Your task to perform on an android device: Go to Reddit.com Image 0: 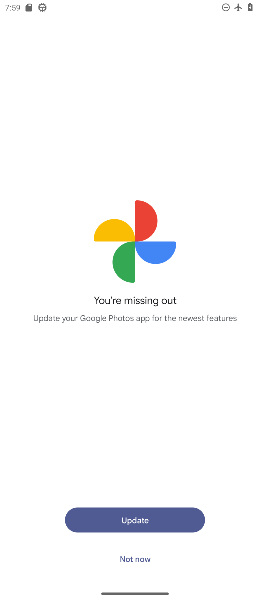
Step 0: press back button
Your task to perform on an android device: Go to Reddit.com Image 1: 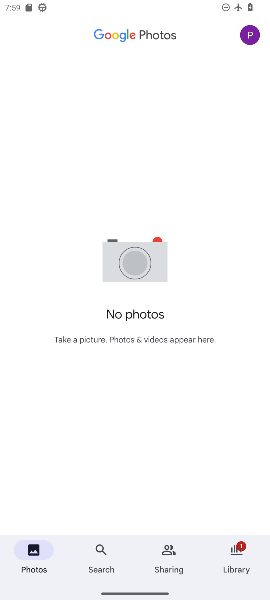
Step 1: press home button
Your task to perform on an android device: Go to Reddit.com Image 2: 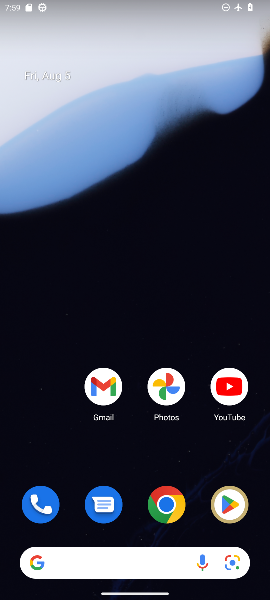
Step 2: click (183, 502)
Your task to perform on an android device: Go to Reddit.com Image 3: 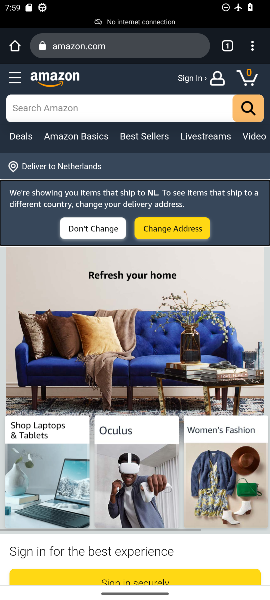
Step 3: click (120, 42)
Your task to perform on an android device: Go to Reddit.com Image 4: 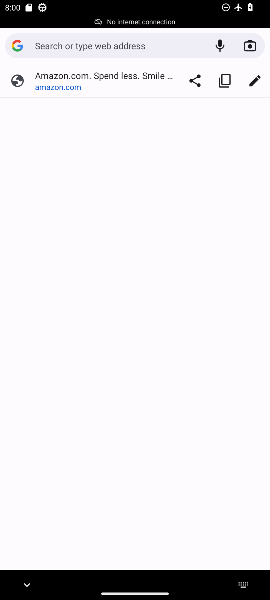
Step 4: type "reddit.com"
Your task to perform on an android device: Go to Reddit.com Image 5: 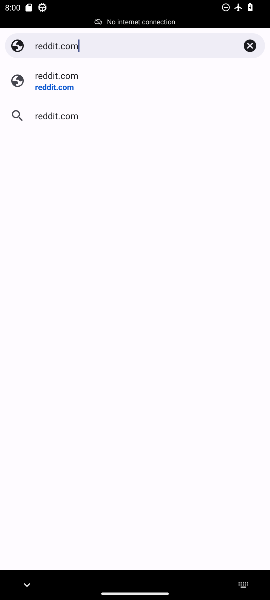
Step 5: click (73, 83)
Your task to perform on an android device: Go to Reddit.com Image 6: 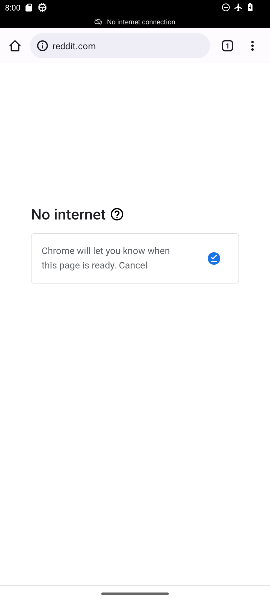
Step 6: task complete